Your task to perform on an android device: Show me the alarms in the clock app Image 0: 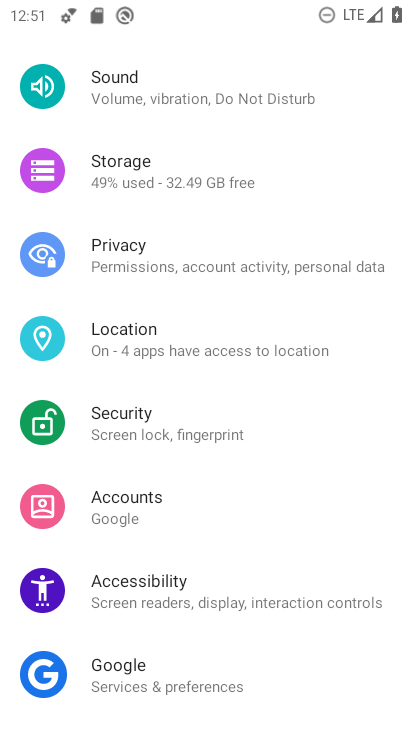
Step 0: press home button
Your task to perform on an android device: Show me the alarms in the clock app Image 1: 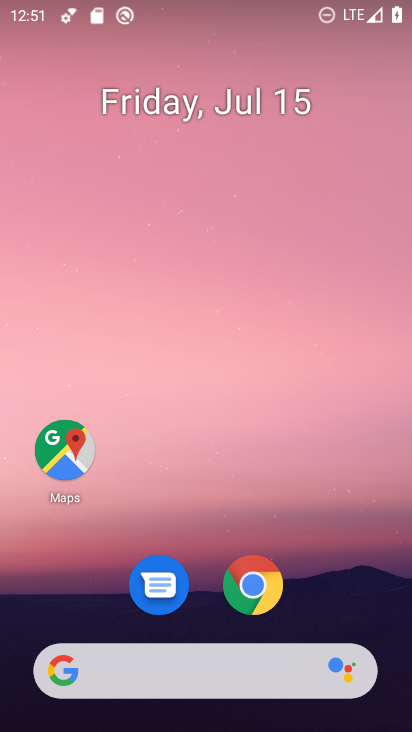
Step 1: drag from (276, 531) to (316, 76)
Your task to perform on an android device: Show me the alarms in the clock app Image 2: 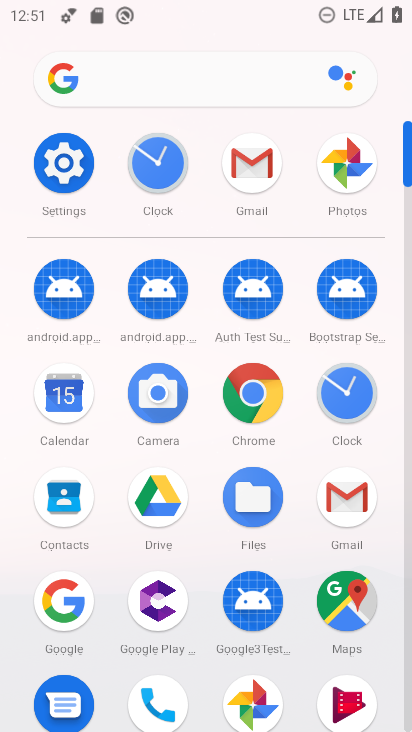
Step 2: click (158, 170)
Your task to perform on an android device: Show me the alarms in the clock app Image 3: 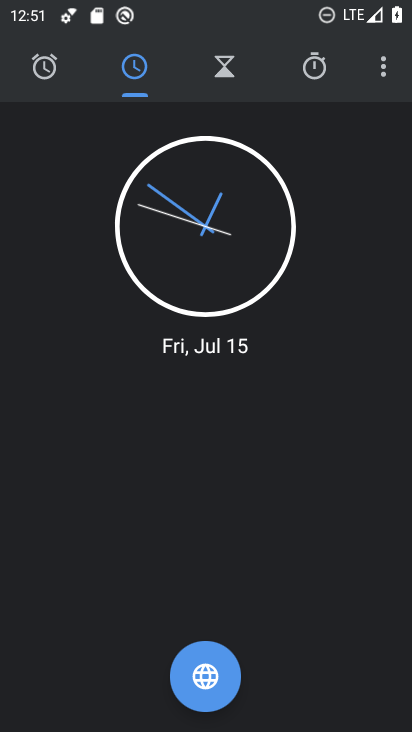
Step 3: click (47, 73)
Your task to perform on an android device: Show me the alarms in the clock app Image 4: 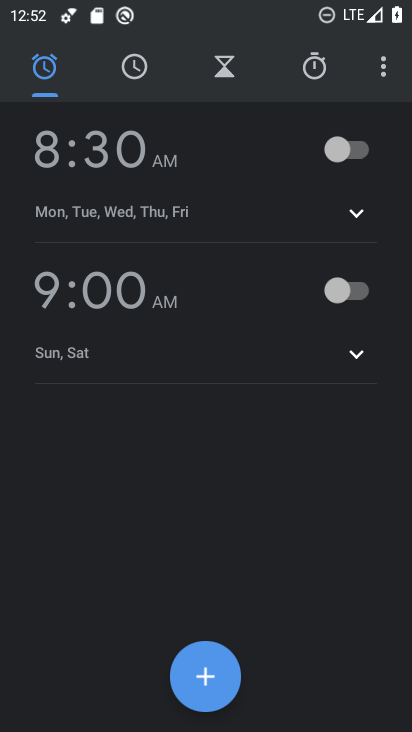
Step 4: task complete